Your task to perform on an android device: remove spam from my inbox in the gmail app Image 0: 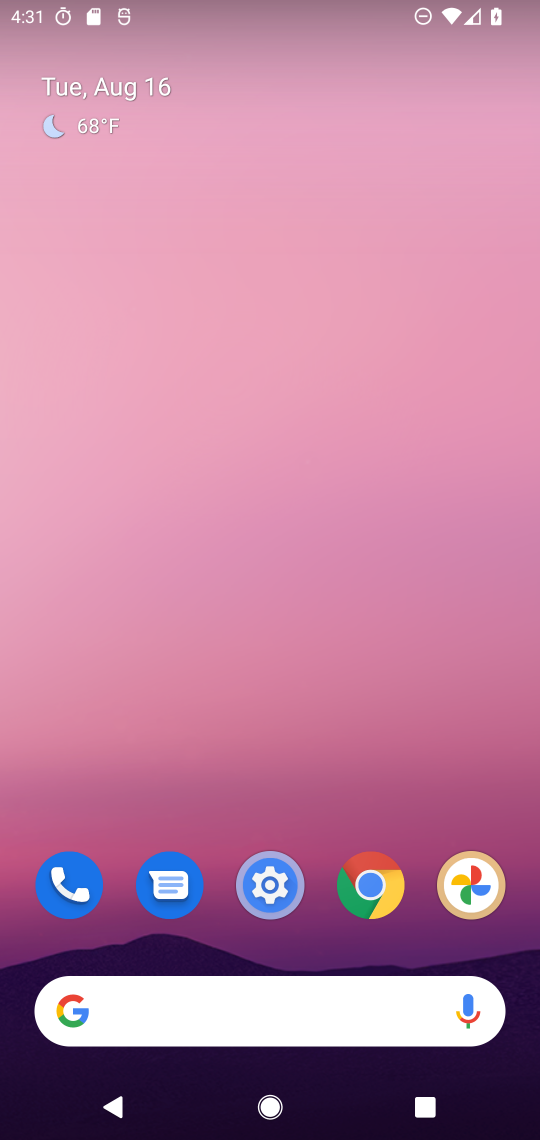
Step 0: drag from (276, 795) to (289, 108)
Your task to perform on an android device: remove spam from my inbox in the gmail app Image 1: 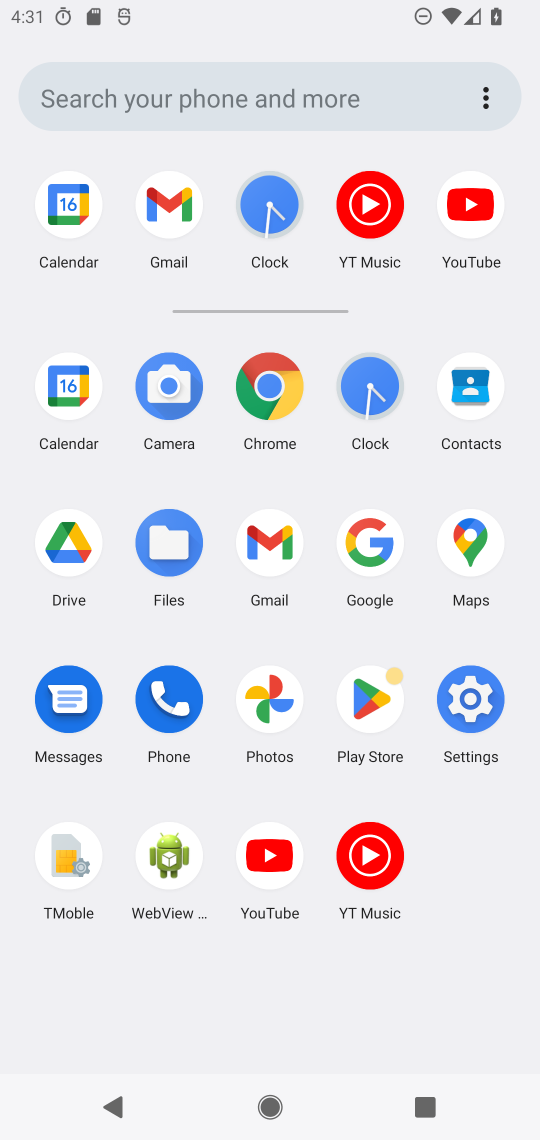
Step 1: click (273, 526)
Your task to perform on an android device: remove spam from my inbox in the gmail app Image 2: 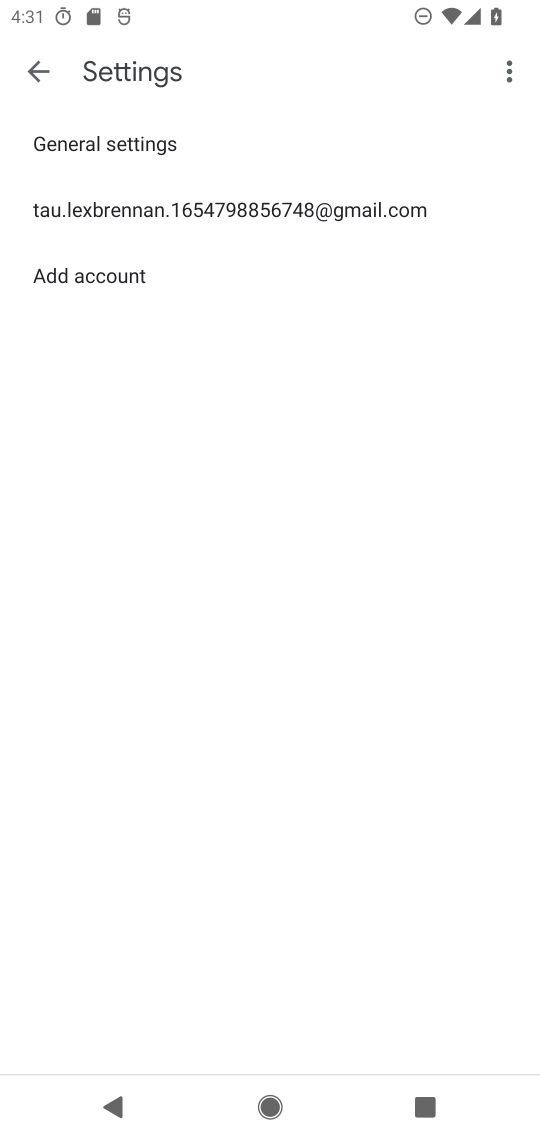
Step 2: click (67, 199)
Your task to perform on an android device: remove spam from my inbox in the gmail app Image 3: 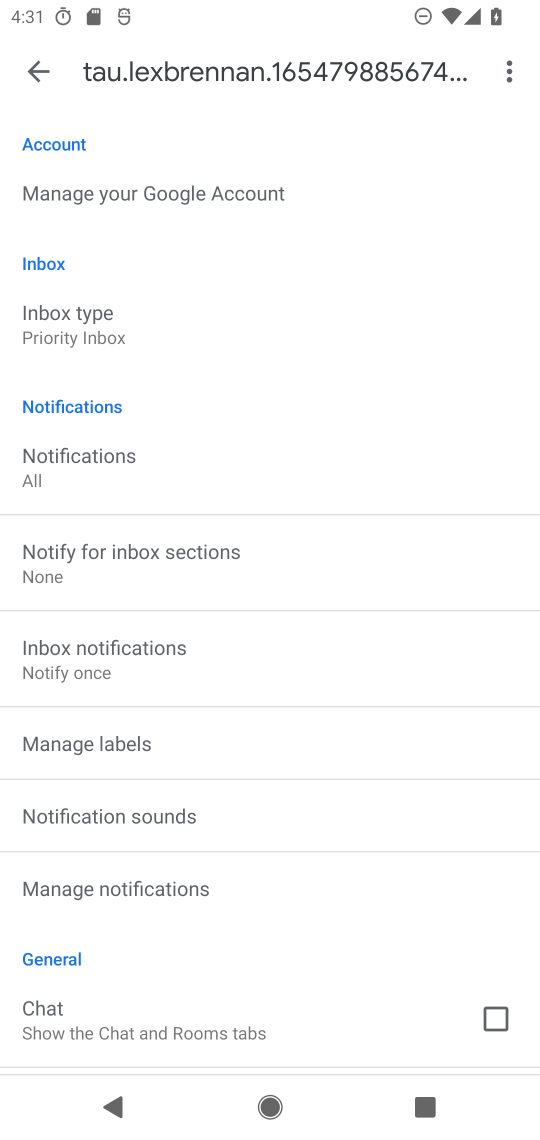
Step 3: click (57, 76)
Your task to perform on an android device: remove spam from my inbox in the gmail app Image 4: 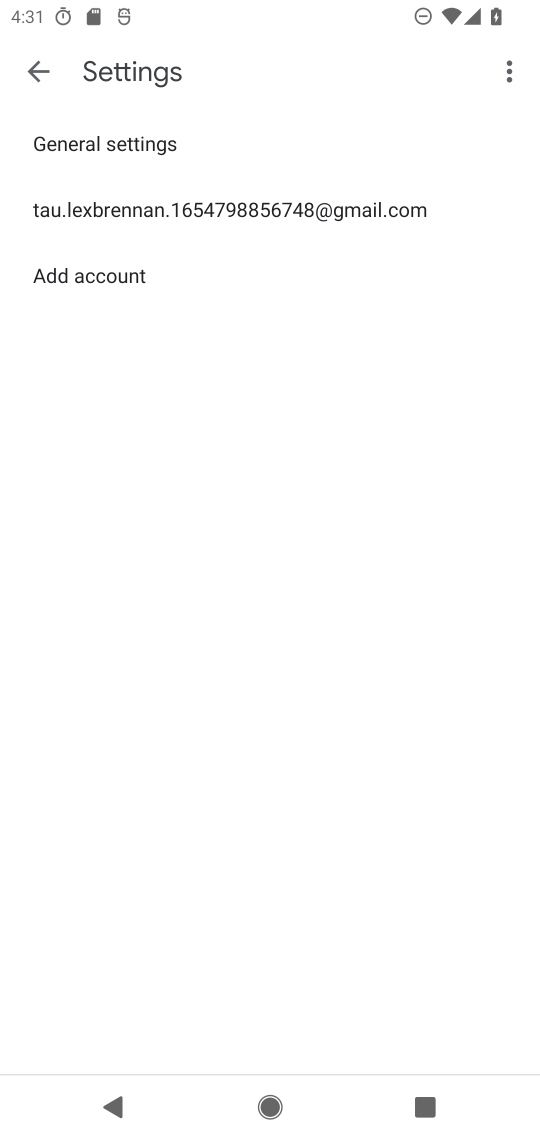
Step 4: click (54, 76)
Your task to perform on an android device: remove spam from my inbox in the gmail app Image 5: 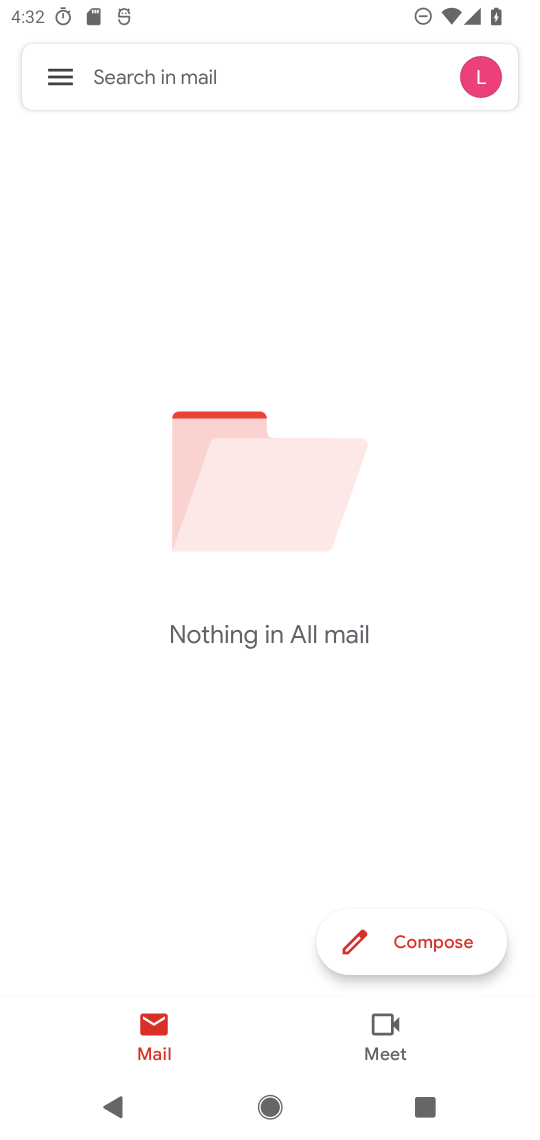
Step 5: click (57, 60)
Your task to perform on an android device: remove spam from my inbox in the gmail app Image 6: 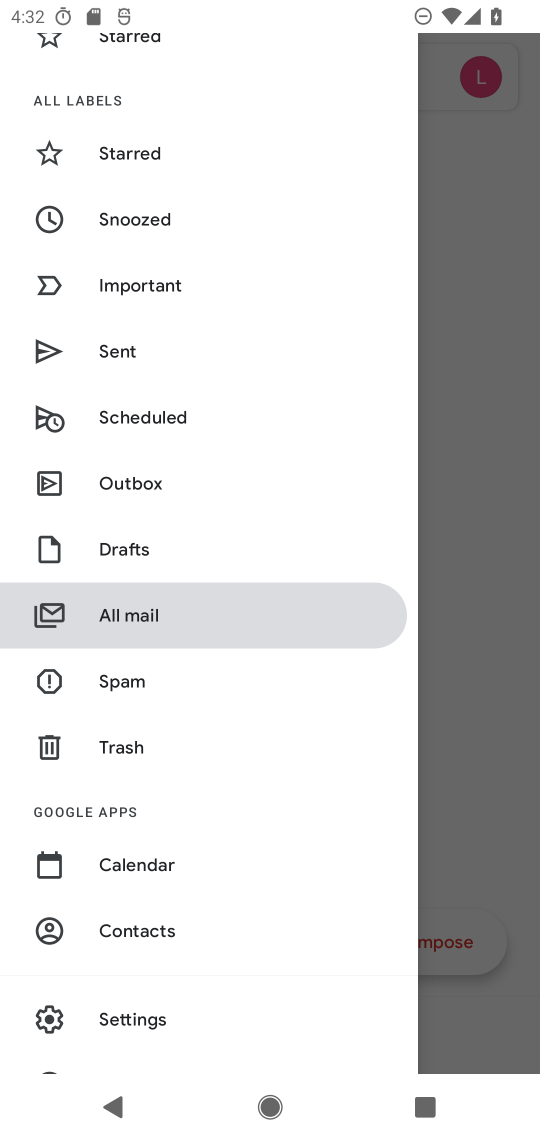
Step 6: click (113, 689)
Your task to perform on an android device: remove spam from my inbox in the gmail app Image 7: 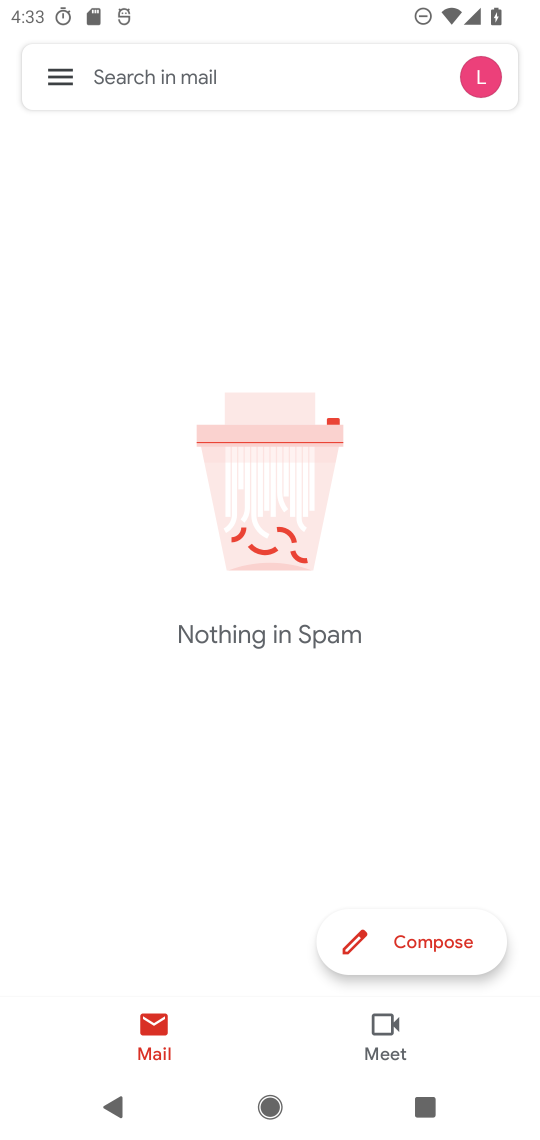
Step 7: task complete